Your task to perform on an android device: Open calendar and show me the first week of next month Image 0: 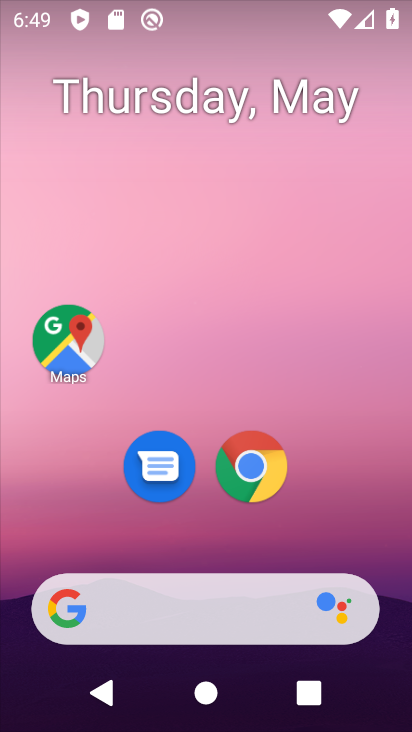
Step 0: drag from (327, 496) to (147, 17)
Your task to perform on an android device: Open calendar and show me the first week of next month Image 1: 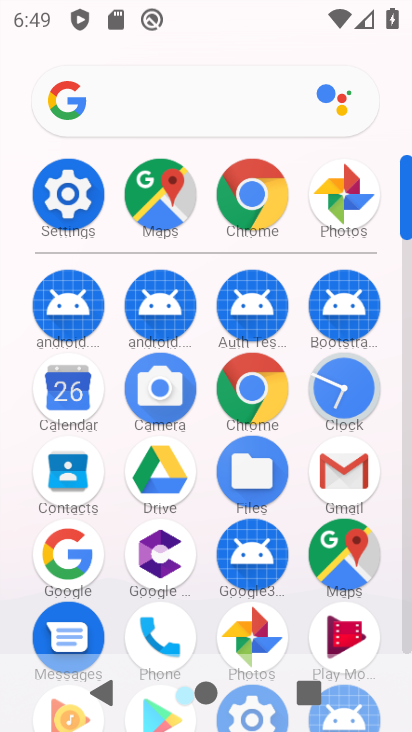
Step 1: click (65, 397)
Your task to perform on an android device: Open calendar and show me the first week of next month Image 2: 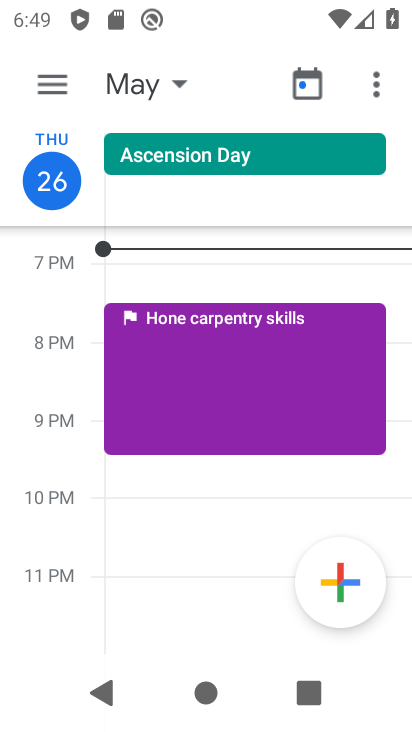
Step 2: click (57, 81)
Your task to perform on an android device: Open calendar and show me the first week of next month Image 3: 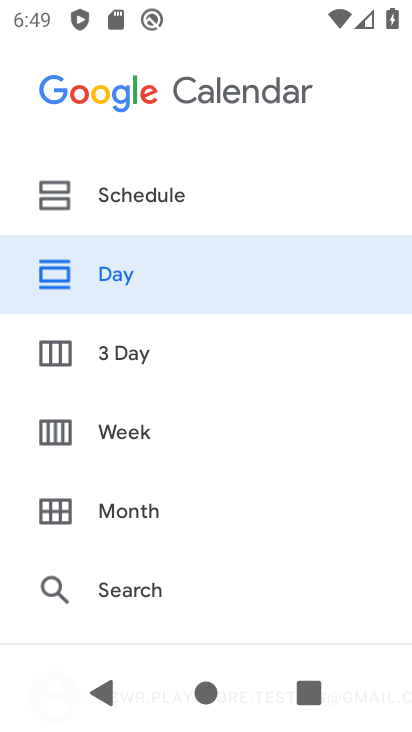
Step 3: click (128, 433)
Your task to perform on an android device: Open calendar and show me the first week of next month Image 4: 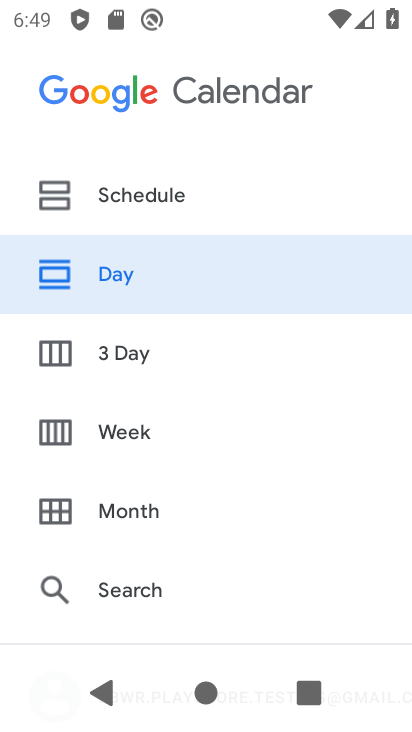
Step 4: click (116, 428)
Your task to perform on an android device: Open calendar and show me the first week of next month Image 5: 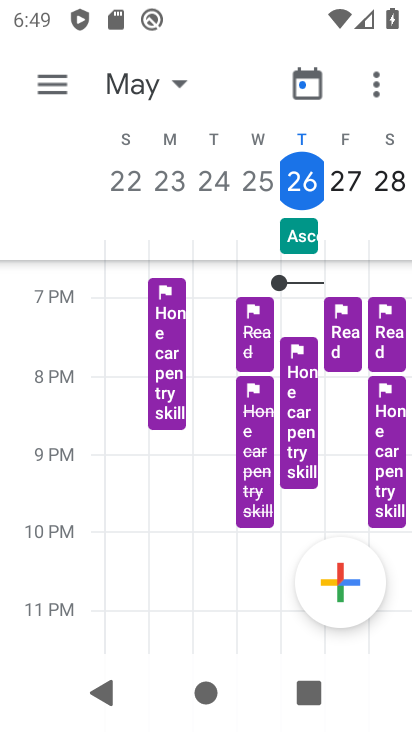
Step 5: click (178, 91)
Your task to perform on an android device: Open calendar and show me the first week of next month Image 6: 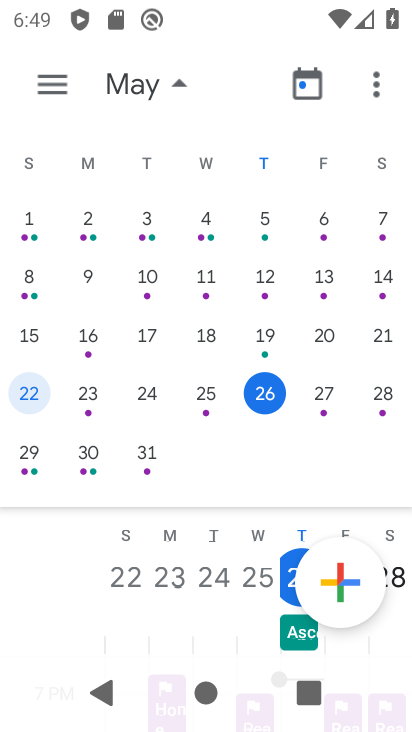
Step 6: task complete